Your task to perform on an android device: toggle notification dots Image 0: 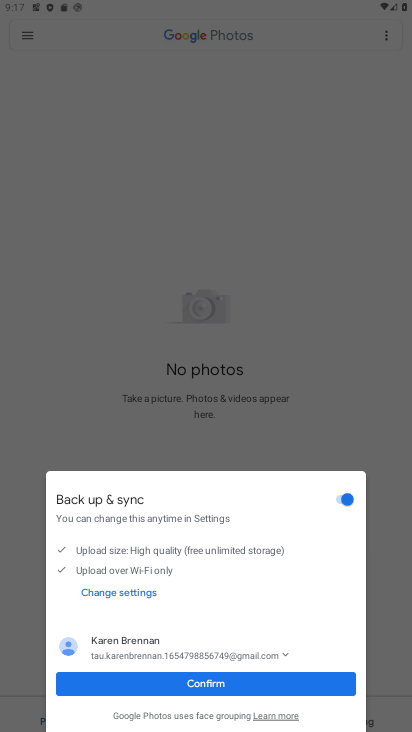
Step 0: press home button
Your task to perform on an android device: toggle notification dots Image 1: 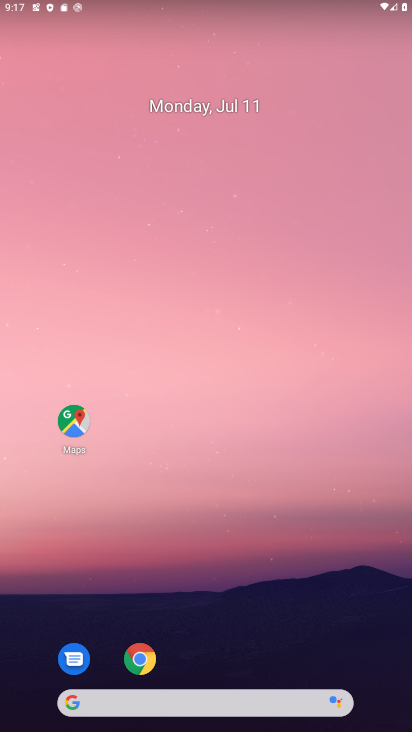
Step 1: drag from (214, 731) to (211, 173)
Your task to perform on an android device: toggle notification dots Image 2: 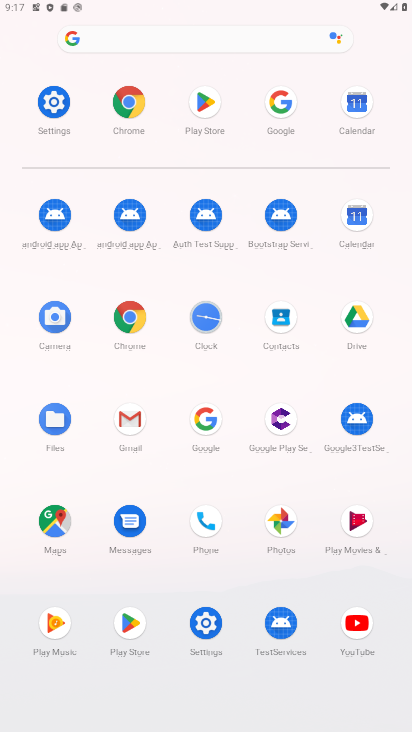
Step 2: click (57, 102)
Your task to perform on an android device: toggle notification dots Image 3: 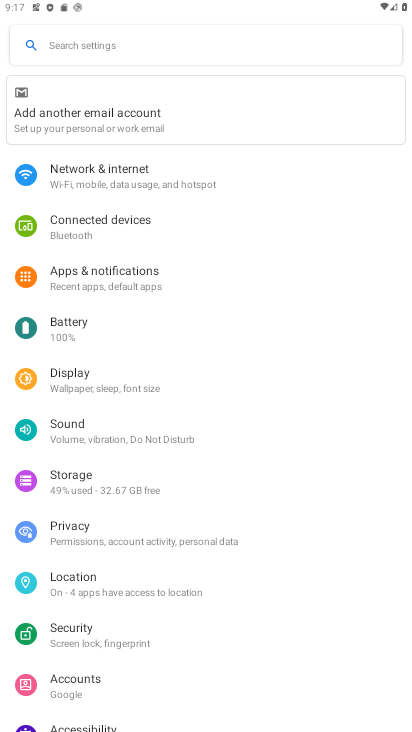
Step 3: click (112, 273)
Your task to perform on an android device: toggle notification dots Image 4: 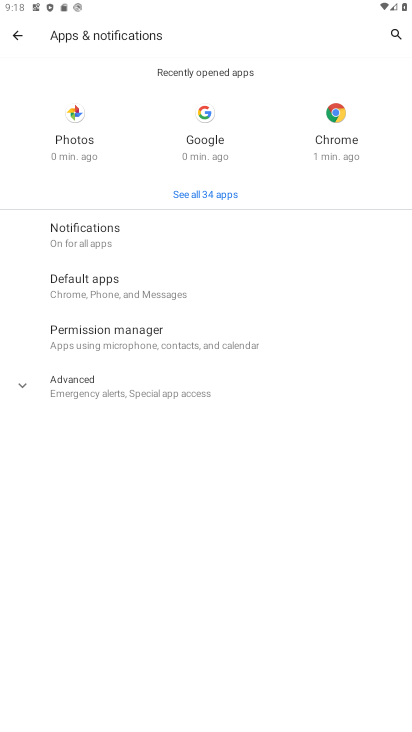
Step 4: click (79, 228)
Your task to perform on an android device: toggle notification dots Image 5: 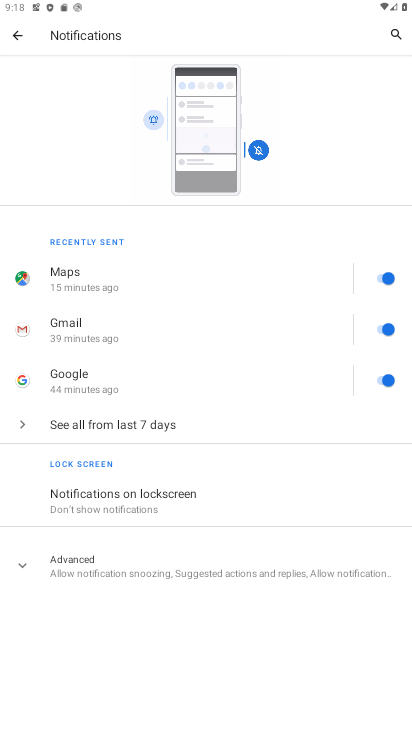
Step 5: click (76, 569)
Your task to perform on an android device: toggle notification dots Image 6: 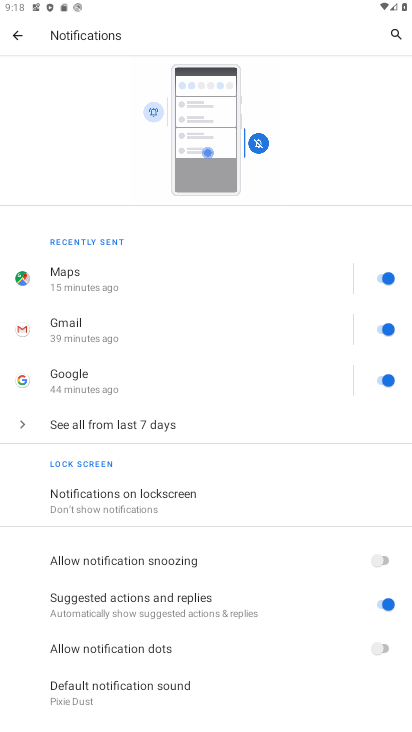
Step 6: click (390, 644)
Your task to perform on an android device: toggle notification dots Image 7: 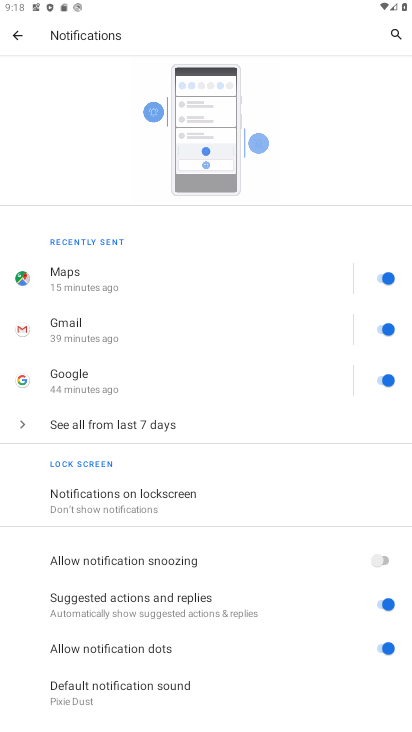
Step 7: task complete